Your task to perform on an android device: refresh tabs in the chrome app Image 0: 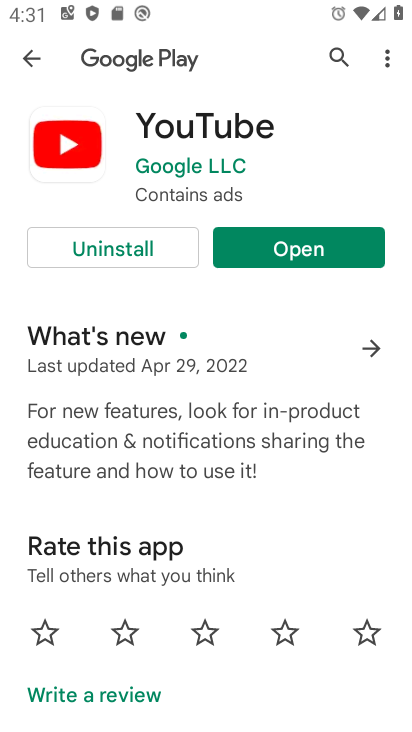
Step 0: press home button
Your task to perform on an android device: refresh tabs in the chrome app Image 1: 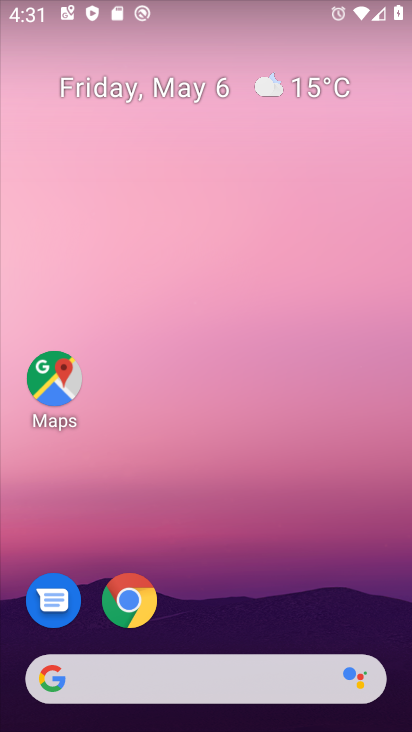
Step 1: click (150, 586)
Your task to perform on an android device: refresh tabs in the chrome app Image 2: 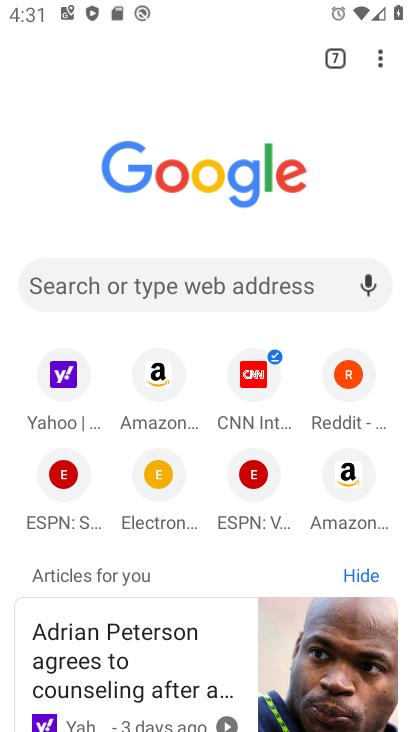
Step 2: click (376, 60)
Your task to perform on an android device: refresh tabs in the chrome app Image 3: 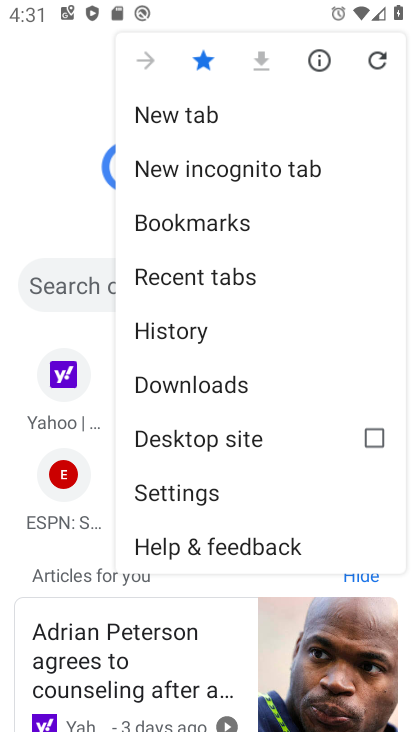
Step 3: click (381, 62)
Your task to perform on an android device: refresh tabs in the chrome app Image 4: 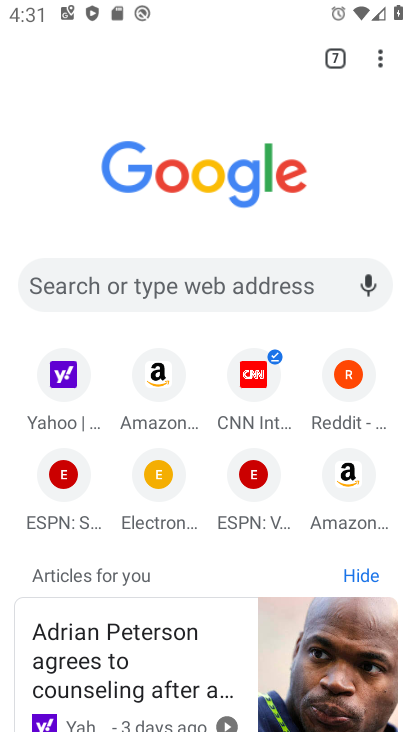
Step 4: task complete